Your task to perform on an android device: open app "PlayWell" (install if not already installed) Image 0: 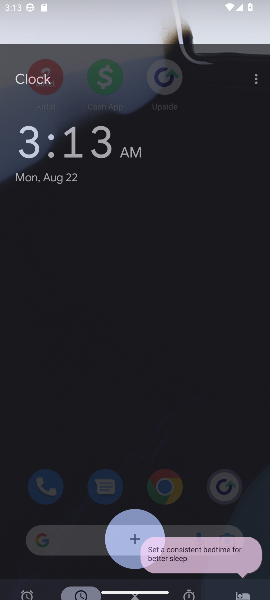
Step 0: click (126, 36)
Your task to perform on an android device: open app "PlayWell" (install if not already installed) Image 1: 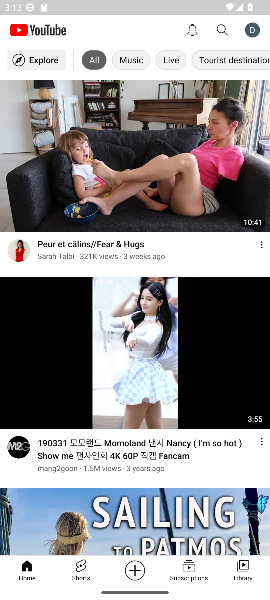
Step 1: press home button
Your task to perform on an android device: open app "PlayWell" (install if not already installed) Image 2: 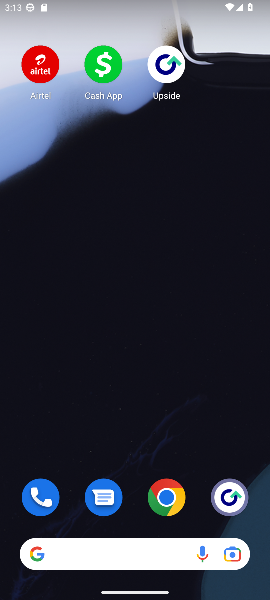
Step 2: drag from (135, 516) to (109, 112)
Your task to perform on an android device: open app "PlayWell" (install if not already installed) Image 3: 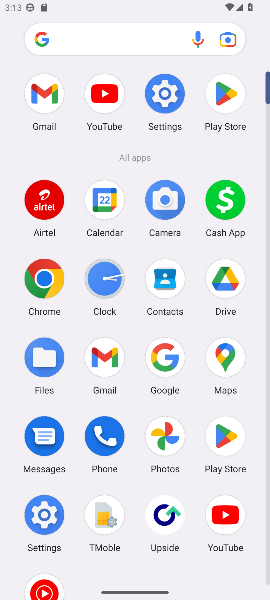
Step 3: click (232, 435)
Your task to perform on an android device: open app "PlayWell" (install if not already installed) Image 4: 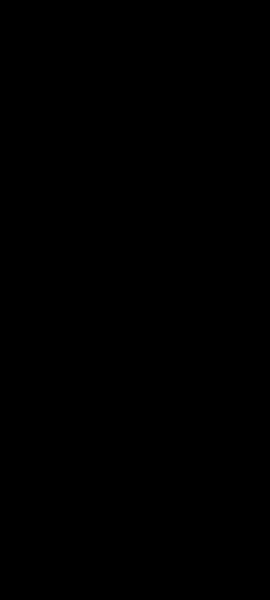
Step 4: task complete